Your task to perform on an android device: Is it going to rain this weekend? Image 0: 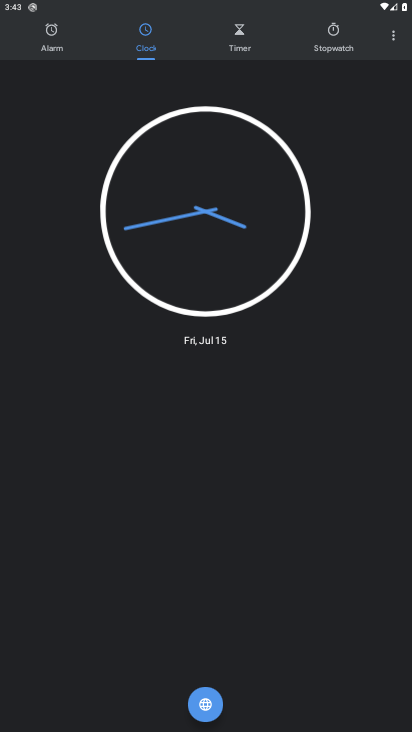
Step 0: press home button
Your task to perform on an android device: Is it going to rain this weekend? Image 1: 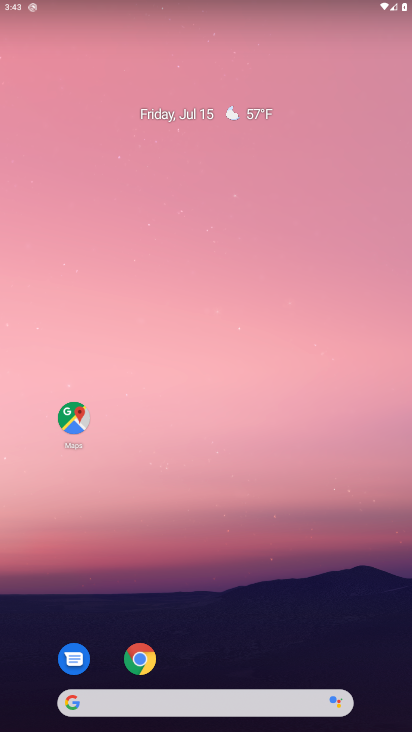
Step 1: click (111, 704)
Your task to perform on an android device: Is it going to rain this weekend? Image 2: 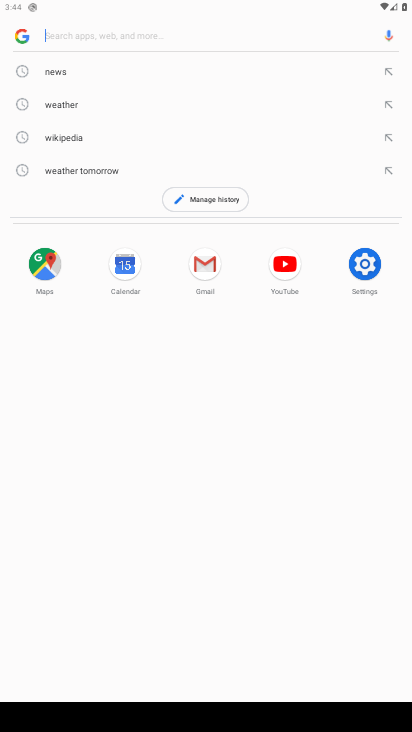
Step 2: click (62, 33)
Your task to perform on an android device: Is it going to rain this weekend? Image 3: 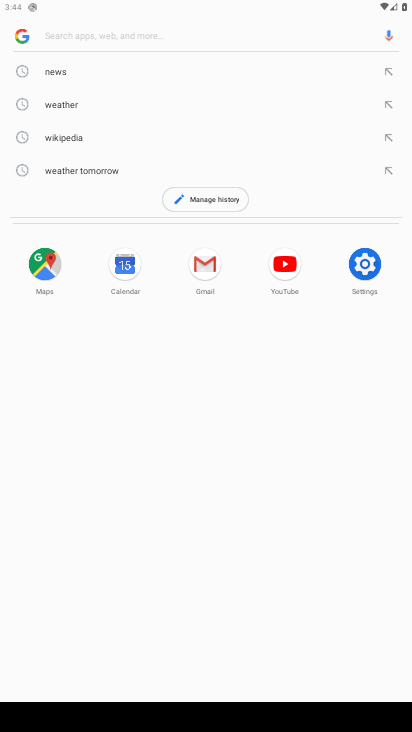
Step 3: type "Is it going to rain this weekend?"
Your task to perform on an android device: Is it going to rain this weekend? Image 4: 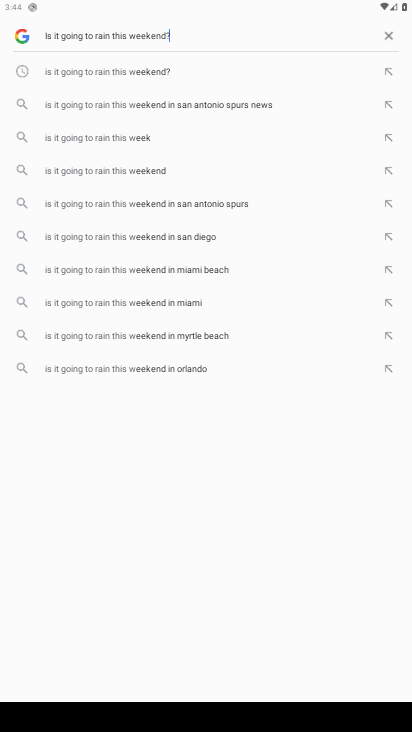
Step 4: type ""
Your task to perform on an android device: Is it going to rain this weekend? Image 5: 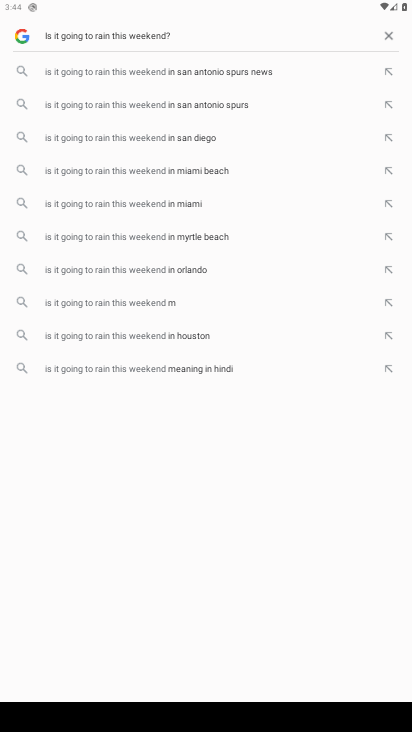
Step 5: type ""
Your task to perform on an android device: Is it going to rain this weekend? Image 6: 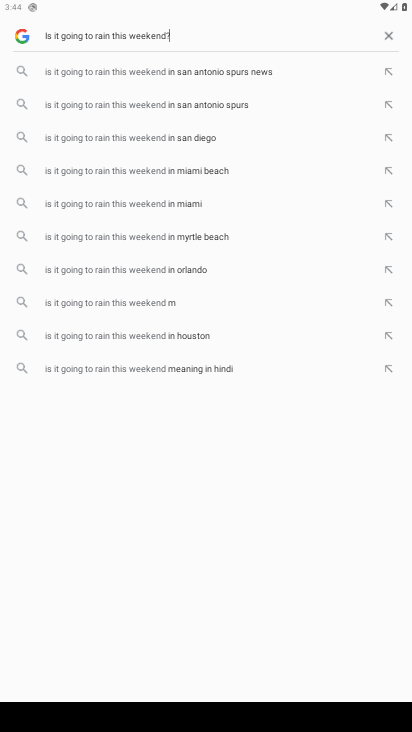
Step 6: type ""
Your task to perform on an android device: Is it going to rain this weekend? Image 7: 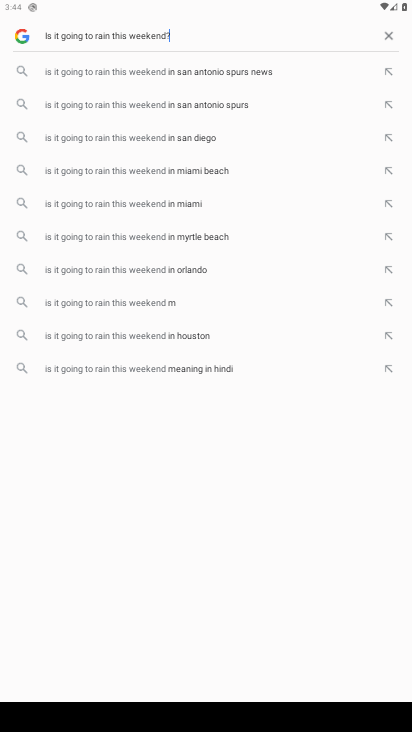
Step 7: task complete